Your task to perform on an android device: add a contact in the contacts app Image 0: 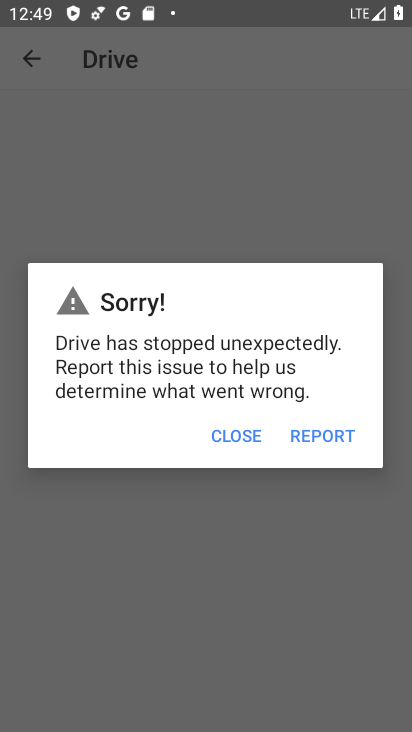
Step 0: drag from (194, 680) to (163, 151)
Your task to perform on an android device: add a contact in the contacts app Image 1: 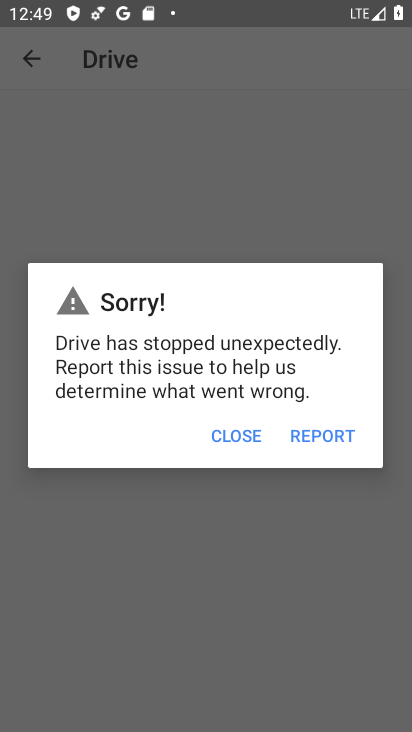
Step 1: press home button
Your task to perform on an android device: add a contact in the contacts app Image 2: 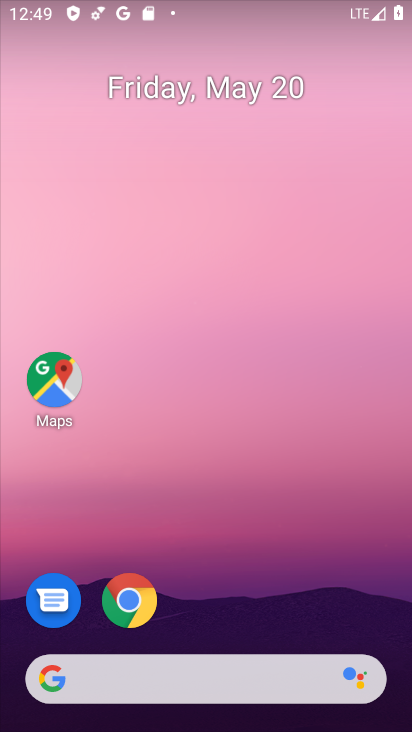
Step 2: drag from (201, 670) to (192, 290)
Your task to perform on an android device: add a contact in the contacts app Image 3: 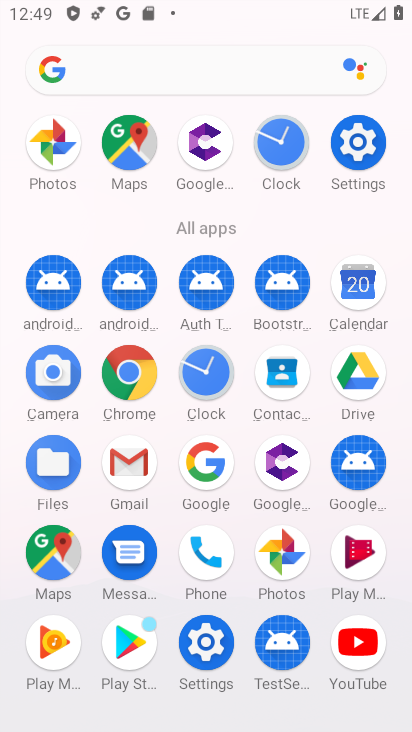
Step 3: click (267, 384)
Your task to perform on an android device: add a contact in the contacts app Image 4: 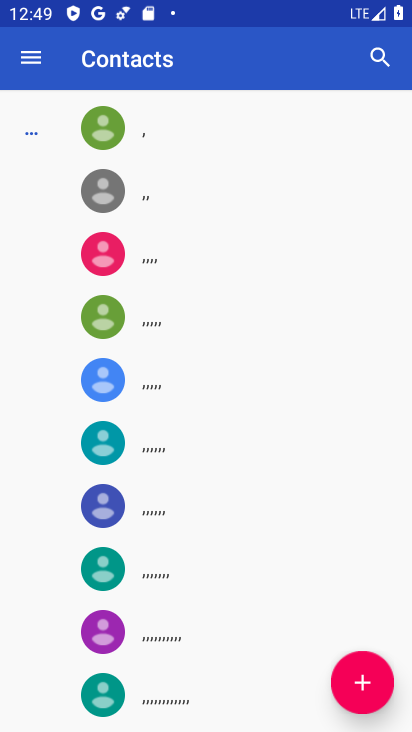
Step 4: click (366, 683)
Your task to perform on an android device: add a contact in the contacts app Image 5: 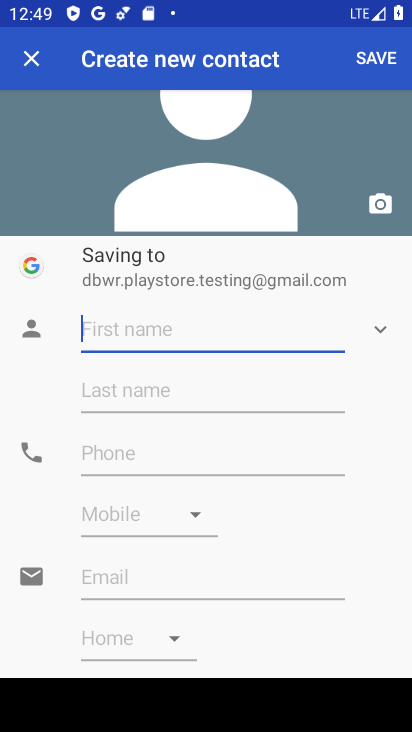
Step 5: type "hfhg"
Your task to perform on an android device: add a contact in the contacts app Image 6: 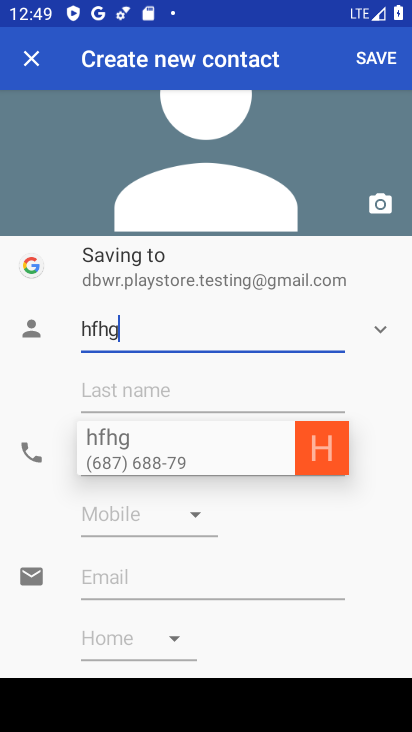
Step 6: click (233, 465)
Your task to perform on an android device: add a contact in the contacts app Image 7: 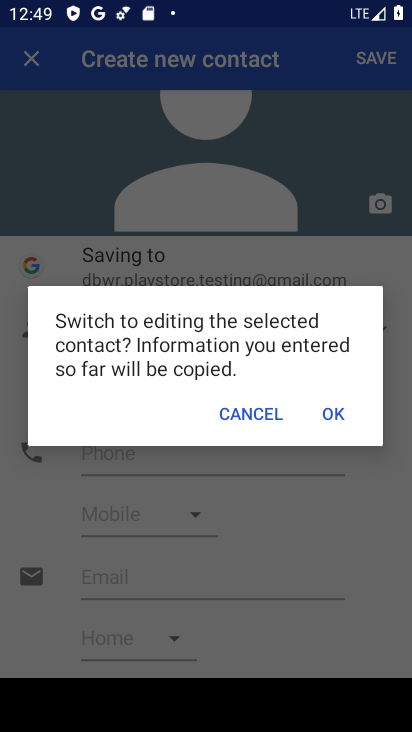
Step 7: click (352, 425)
Your task to perform on an android device: add a contact in the contacts app Image 8: 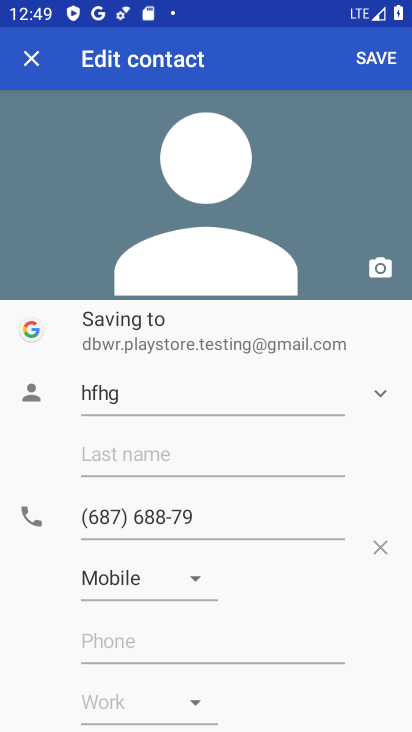
Step 8: click (373, 62)
Your task to perform on an android device: add a contact in the contacts app Image 9: 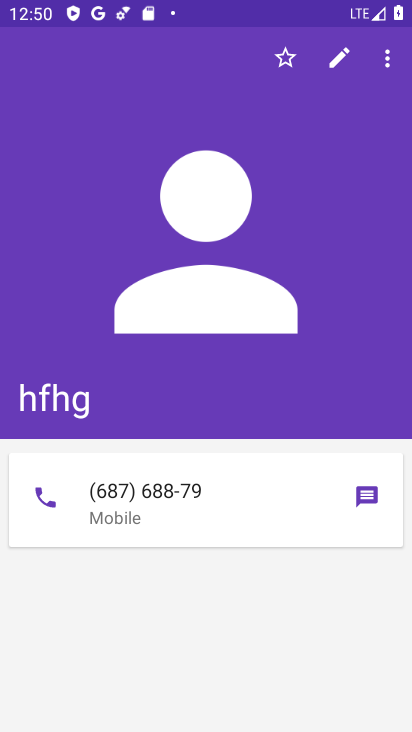
Step 9: task complete